Your task to perform on an android device: Search for razer blade on walmart.com, select the first entry, and add it to the cart. Image 0: 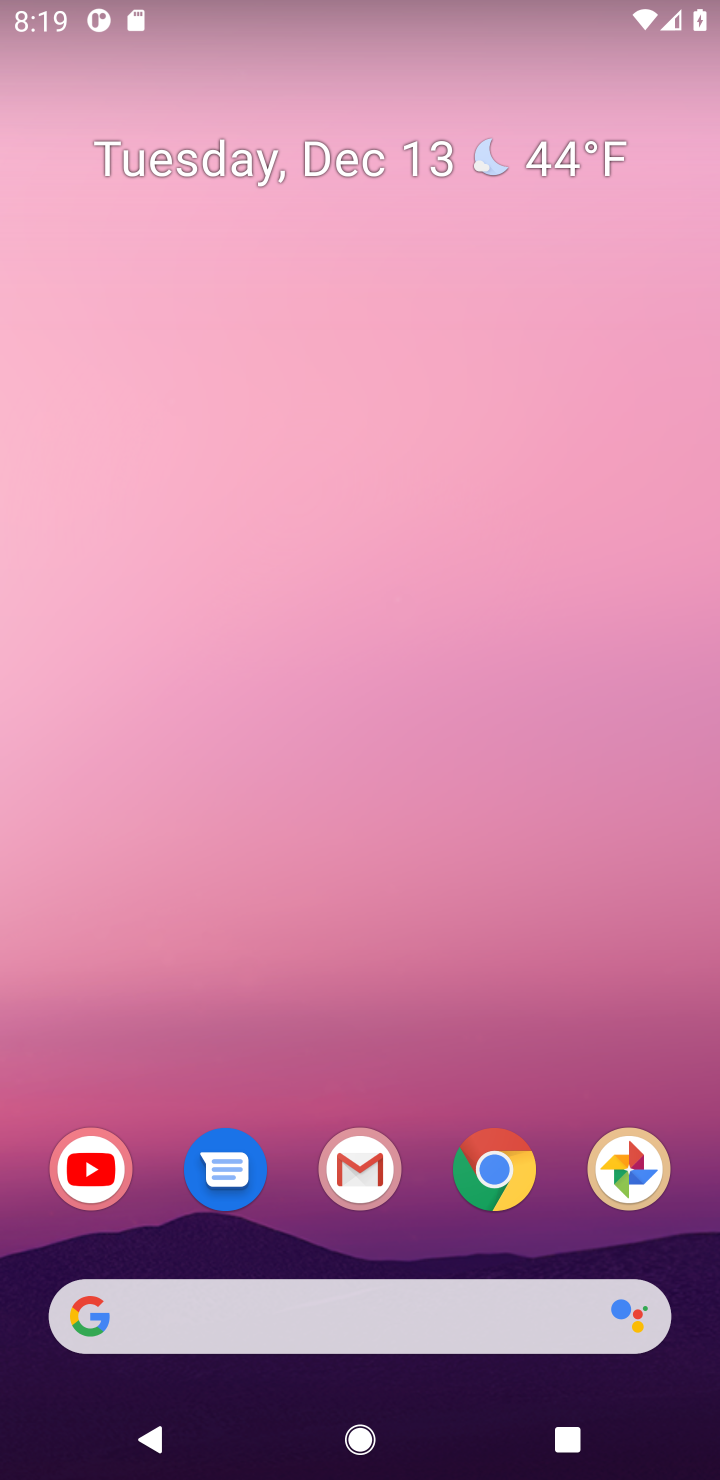
Step 0: click (518, 1197)
Your task to perform on an android device: Search for razer blade on walmart.com, select the first entry, and add it to the cart. Image 1: 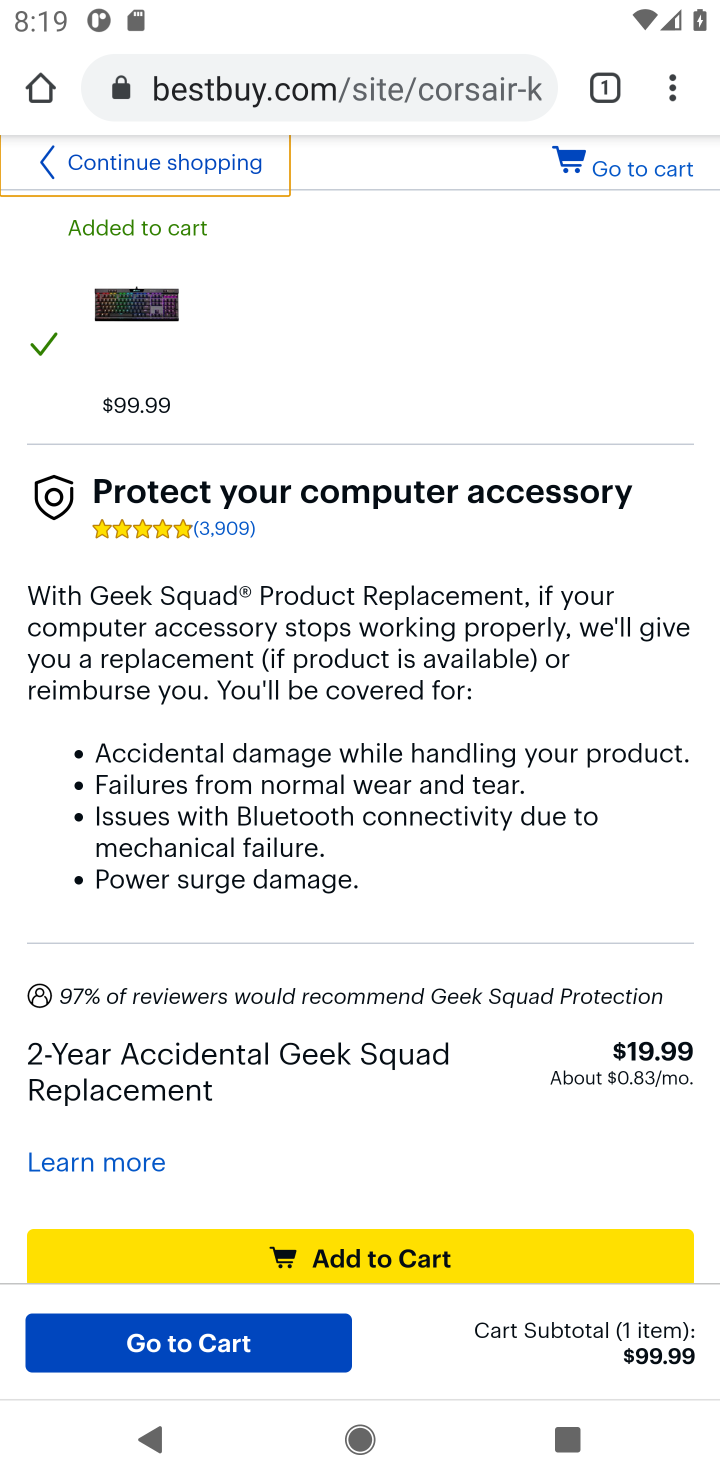
Step 1: click (367, 1255)
Your task to perform on an android device: Search for razer blade on walmart.com, select the first entry, and add it to the cart. Image 2: 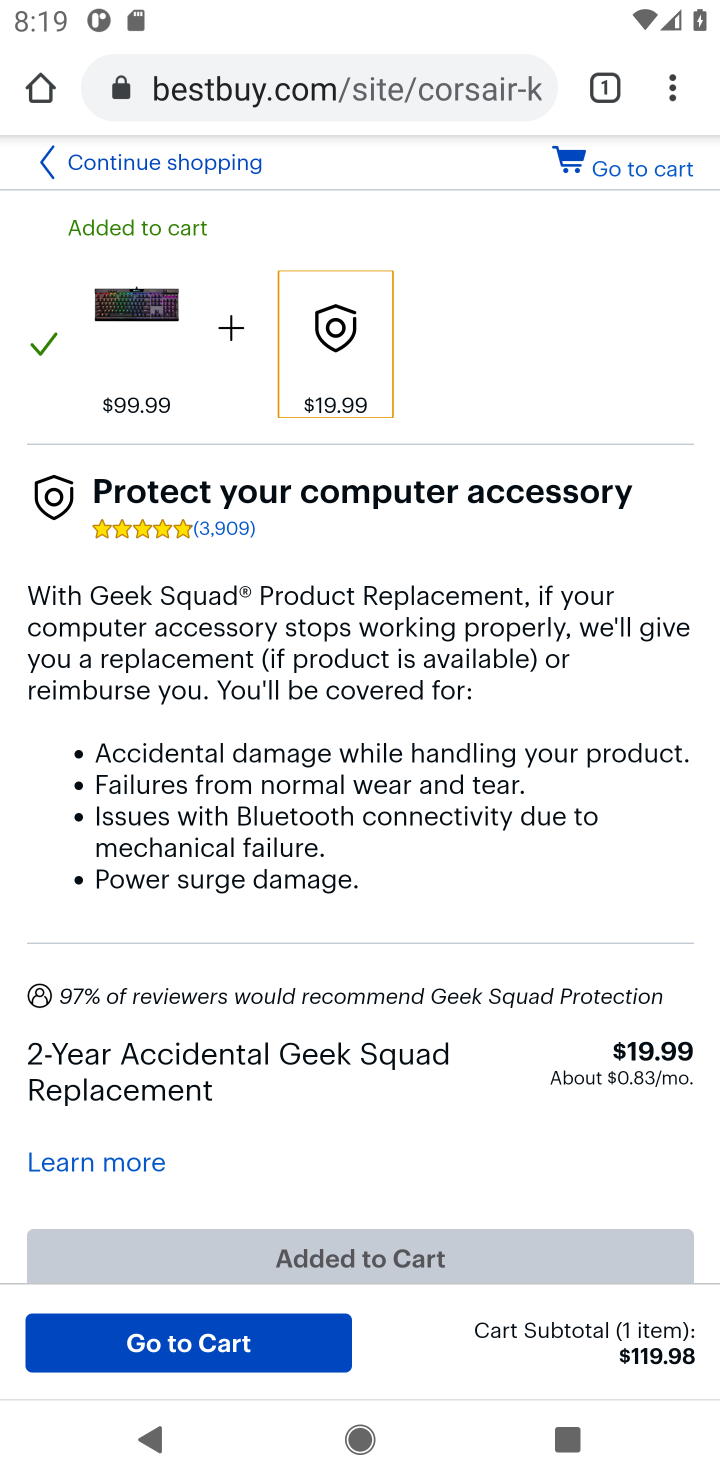
Step 2: task complete